Your task to perform on an android device: clear all cookies in the chrome app Image 0: 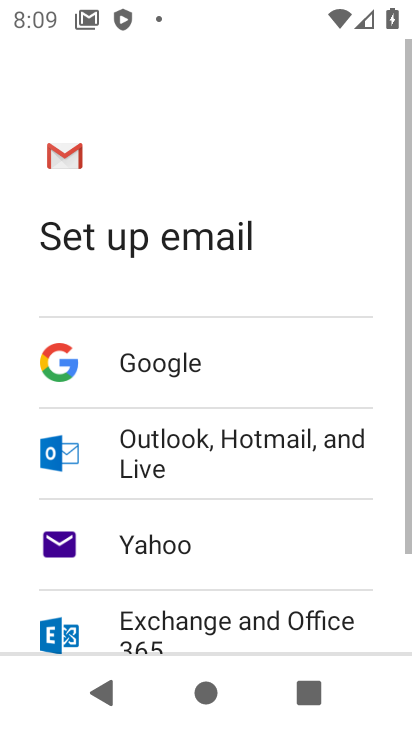
Step 0: press back button
Your task to perform on an android device: clear all cookies in the chrome app Image 1: 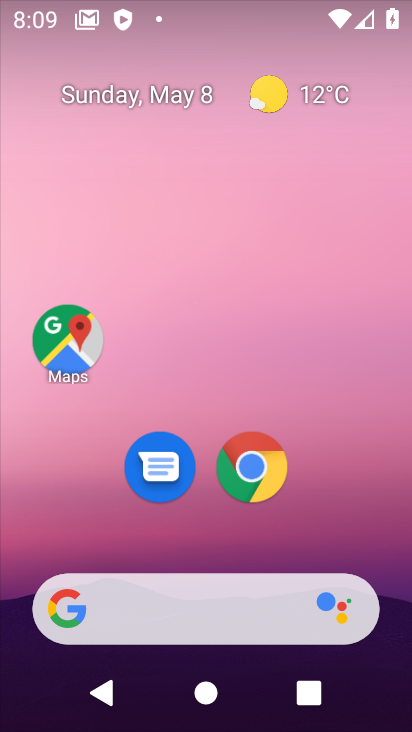
Step 1: click (258, 469)
Your task to perform on an android device: clear all cookies in the chrome app Image 2: 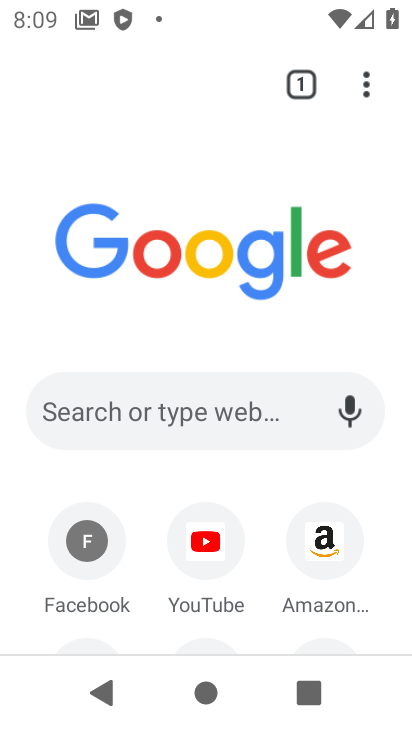
Step 2: click (368, 88)
Your task to perform on an android device: clear all cookies in the chrome app Image 3: 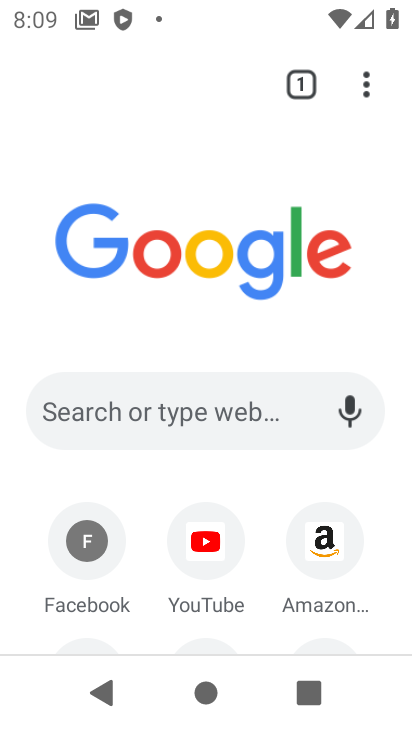
Step 3: click (368, 84)
Your task to perform on an android device: clear all cookies in the chrome app Image 4: 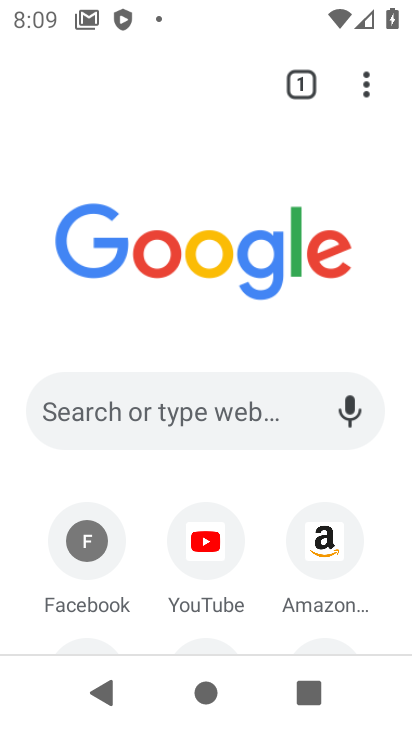
Step 4: drag from (354, 86) to (99, 469)
Your task to perform on an android device: clear all cookies in the chrome app Image 5: 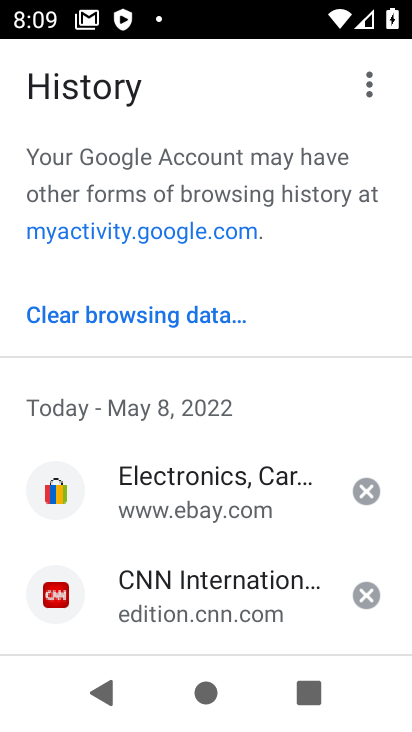
Step 5: click (97, 307)
Your task to perform on an android device: clear all cookies in the chrome app Image 6: 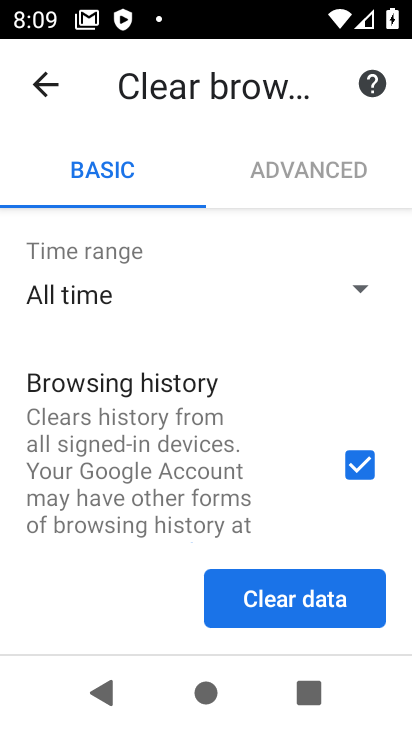
Step 6: click (364, 460)
Your task to perform on an android device: clear all cookies in the chrome app Image 7: 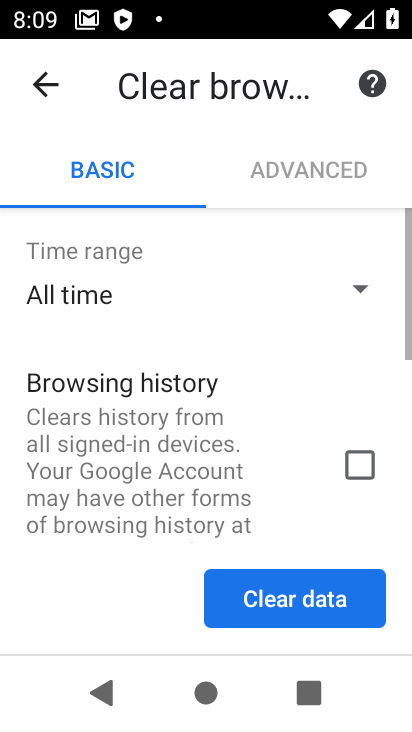
Step 7: drag from (162, 503) to (223, 123)
Your task to perform on an android device: clear all cookies in the chrome app Image 8: 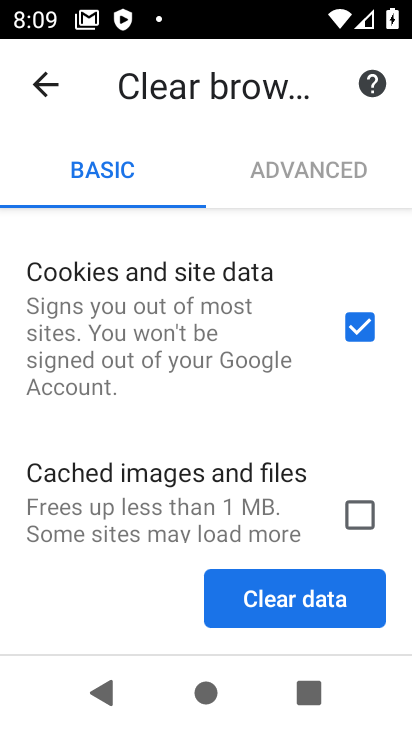
Step 8: click (262, 610)
Your task to perform on an android device: clear all cookies in the chrome app Image 9: 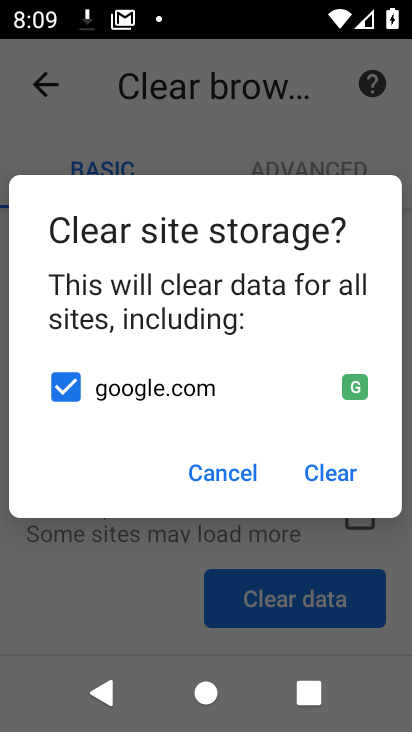
Step 9: click (344, 479)
Your task to perform on an android device: clear all cookies in the chrome app Image 10: 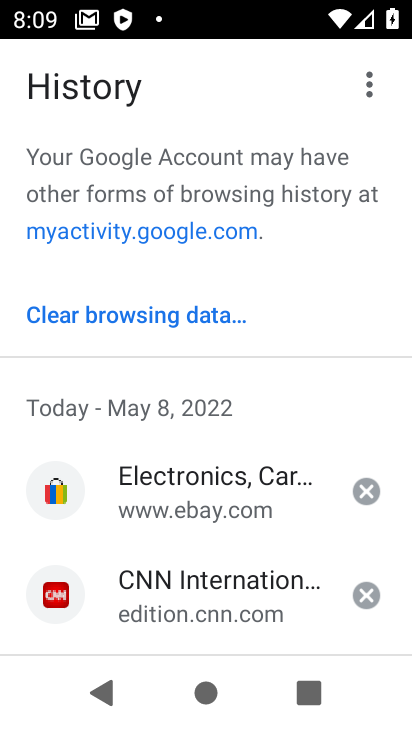
Step 10: task complete